Your task to perform on an android device: change the upload size in google photos Image 0: 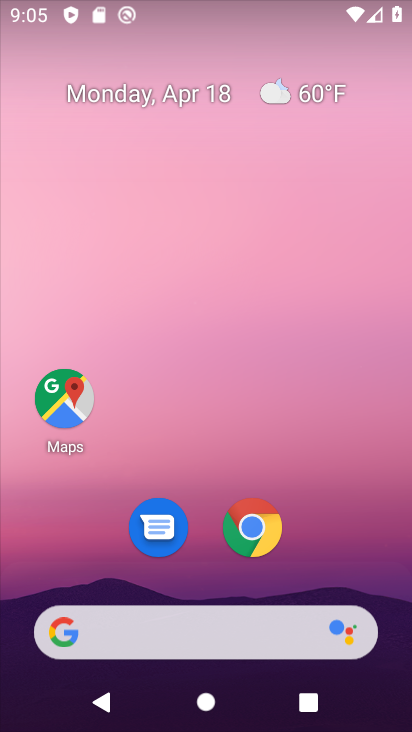
Step 0: drag from (192, 556) to (339, 75)
Your task to perform on an android device: change the upload size in google photos Image 1: 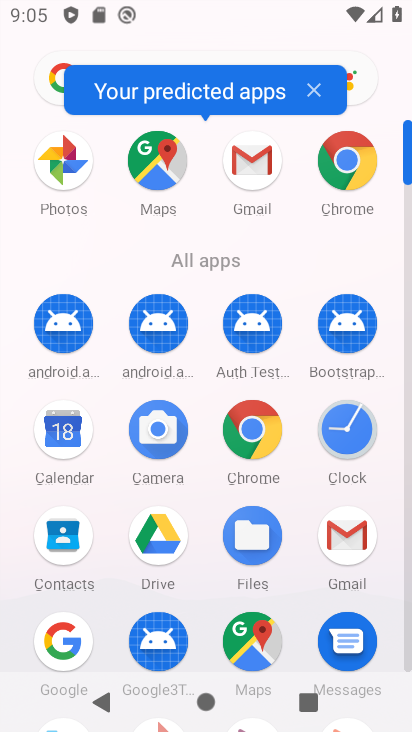
Step 1: click (63, 171)
Your task to perform on an android device: change the upload size in google photos Image 2: 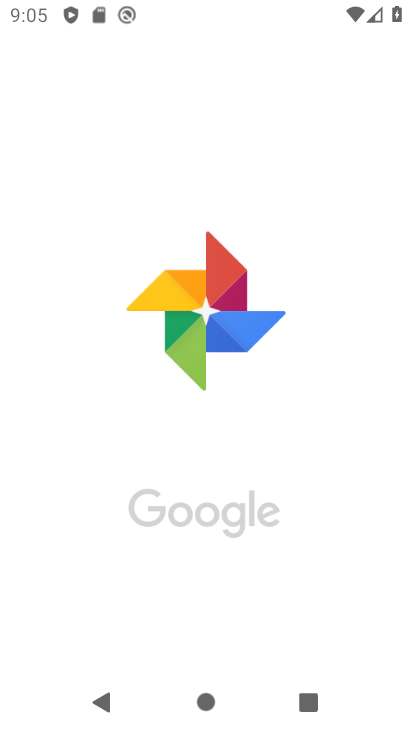
Step 2: click (62, 180)
Your task to perform on an android device: change the upload size in google photos Image 3: 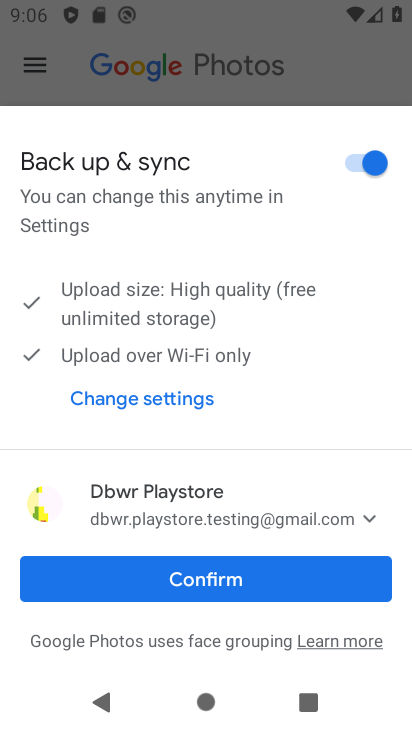
Step 3: click (210, 585)
Your task to perform on an android device: change the upload size in google photos Image 4: 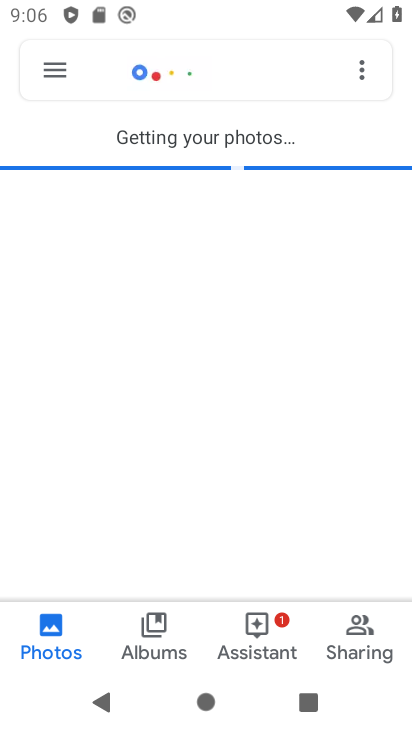
Step 4: click (57, 89)
Your task to perform on an android device: change the upload size in google photos Image 5: 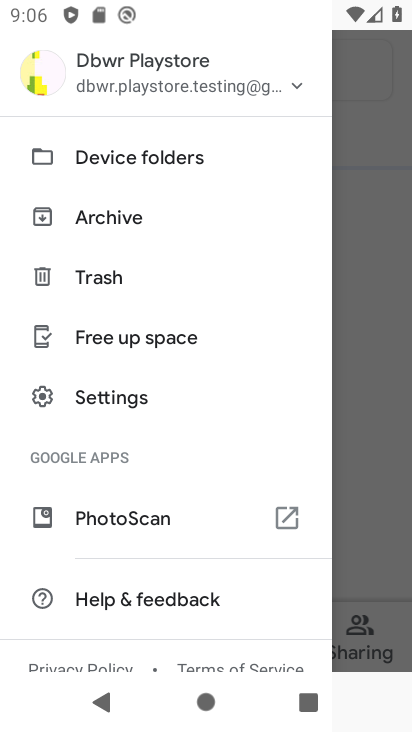
Step 5: click (142, 398)
Your task to perform on an android device: change the upload size in google photos Image 6: 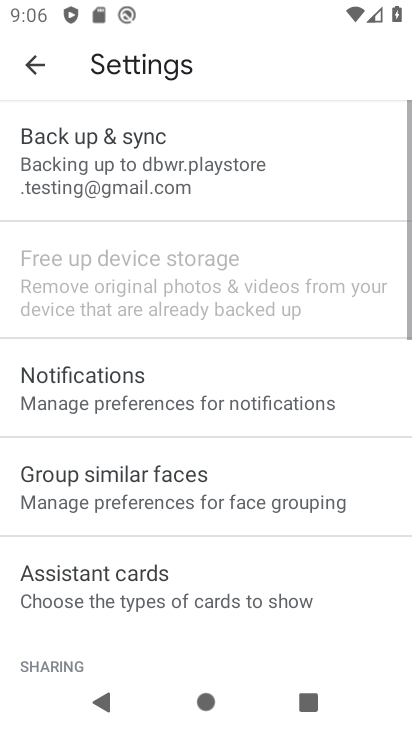
Step 6: click (150, 173)
Your task to perform on an android device: change the upload size in google photos Image 7: 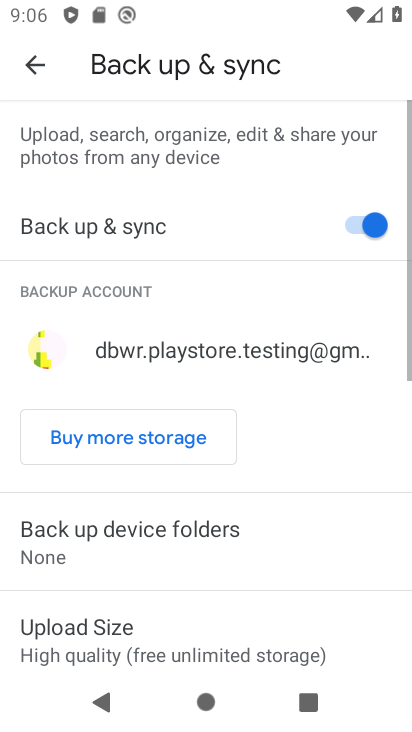
Step 7: drag from (167, 590) to (272, 298)
Your task to perform on an android device: change the upload size in google photos Image 8: 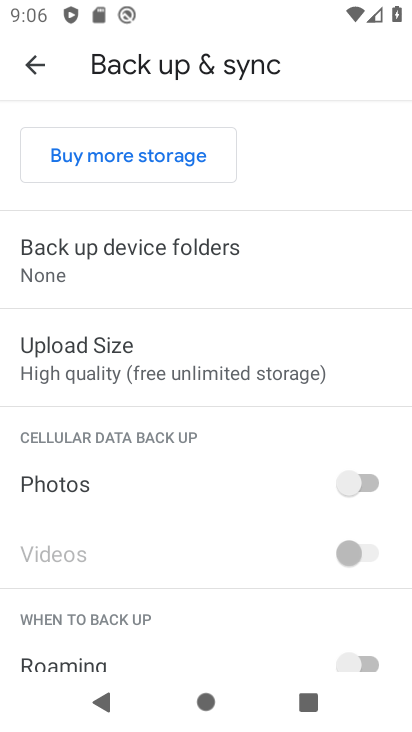
Step 8: click (163, 368)
Your task to perform on an android device: change the upload size in google photos Image 9: 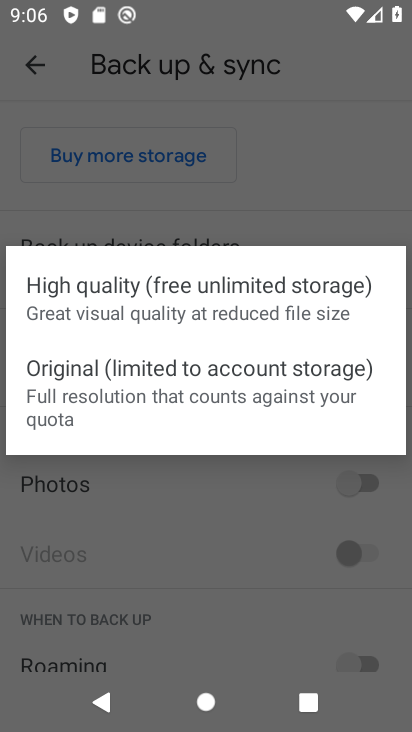
Step 9: click (187, 384)
Your task to perform on an android device: change the upload size in google photos Image 10: 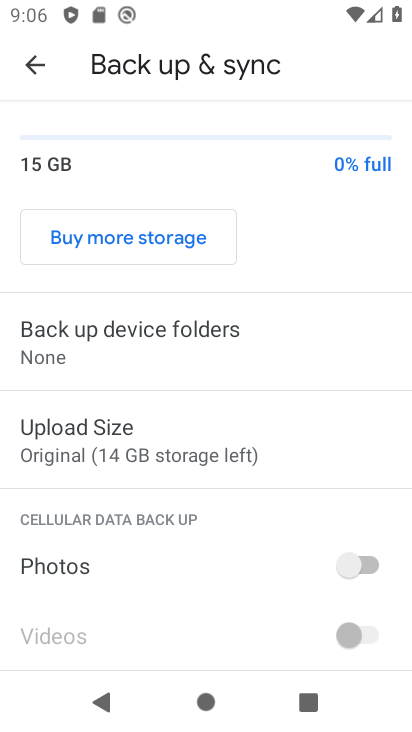
Step 10: task complete